Your task to perform on an android device: change text size in settings app Image 0: 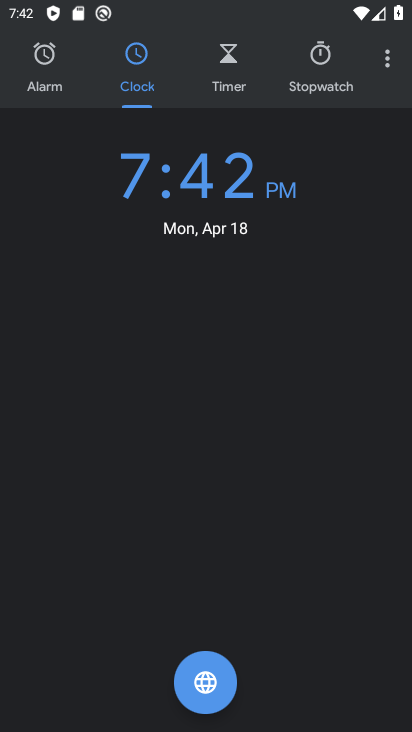
Step 0: press home button
Your task to perform on an android device: change text size in settings app Image 1: 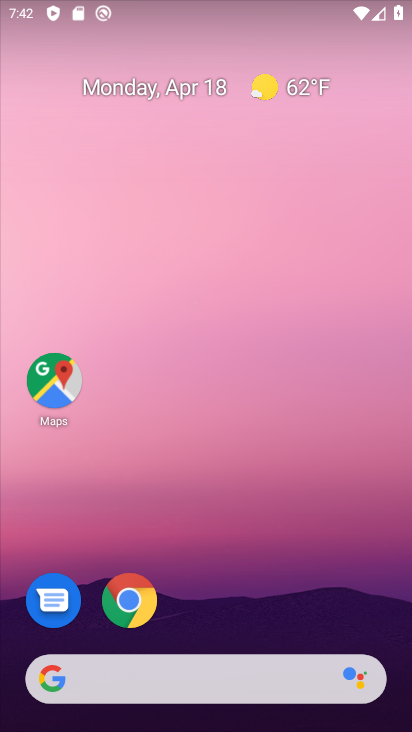
Step 1: drag from (210, 648) to (131, 3)
Your task to perform on an android device: change text size in settings app Image 2: 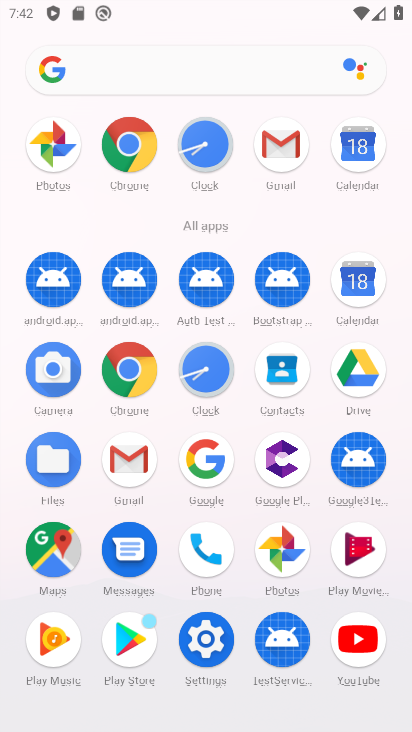
Step 2: click (200, 624)
Your task to perform on an android device: change text size in settings app Image 3: 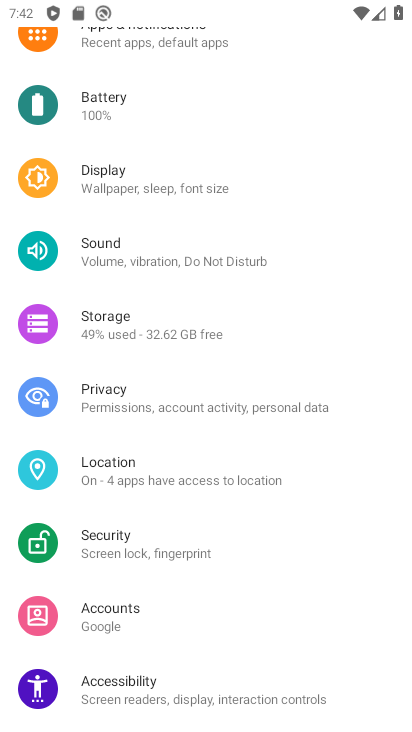
Step 3: click (108, 195)
Your task to perform on an android device: change text size in settings app Image 4: 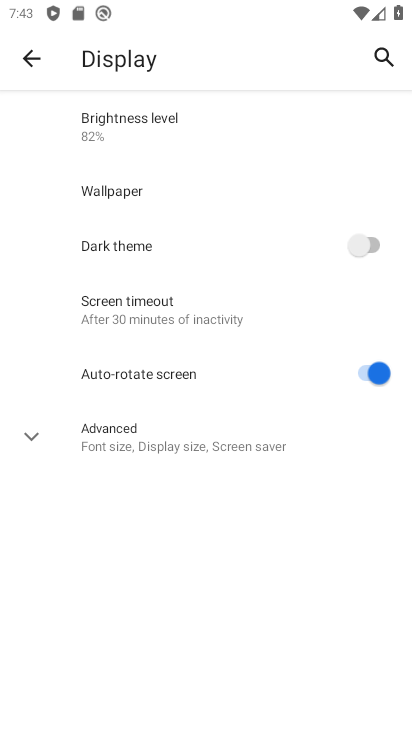
Step 4: click (127, 413)
Your task to perform on an android device: change text size in settings app Image 5: 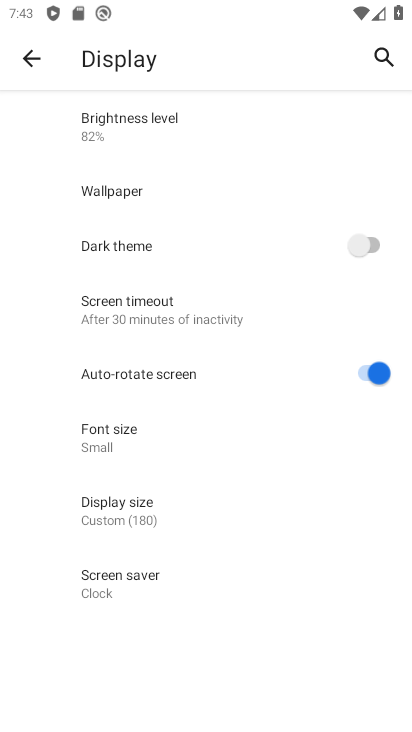
Step 5: click (146, 426)
Your task to perform on an android device: change text size in settings app Image 6: 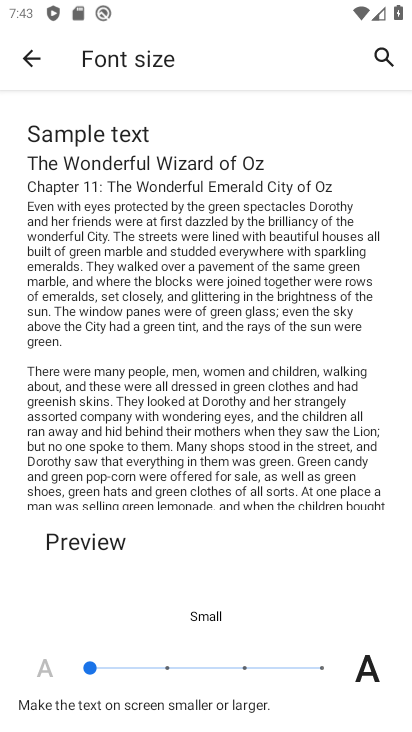
Step 6: click (164, 664)
Your task to perform on an android device: change text size in settings app Image 7: 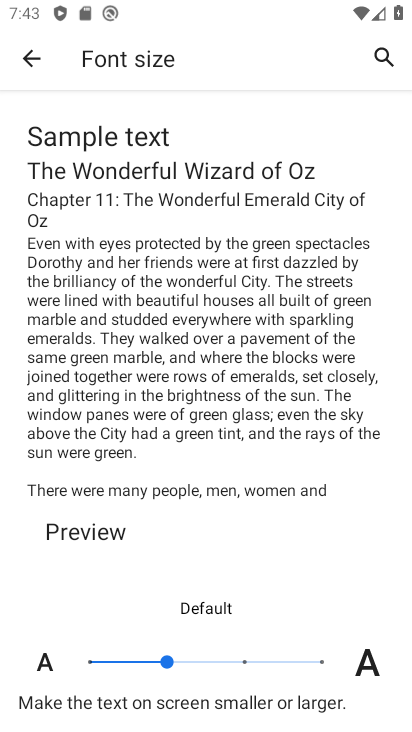
Step 7: task complete